Your task to perform on an android device: What's the weather going to be tomorrow? Image 0: 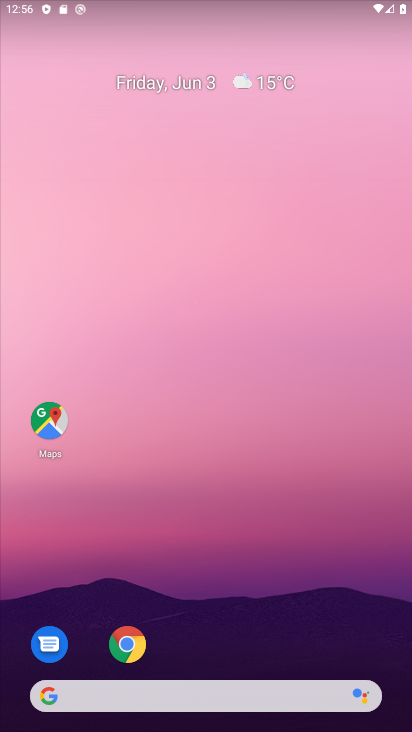
Step 0: click (272, 88)
Your task to perform on an android device: What's the weather going to be tomorrow? Image 1: 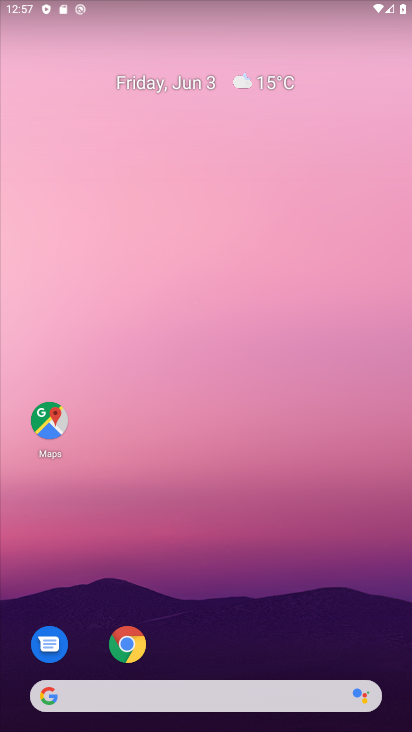
Step 1: click (266, 76)
Your task to perform on an android device: What's the weather going to be tomorrow? Image 2: 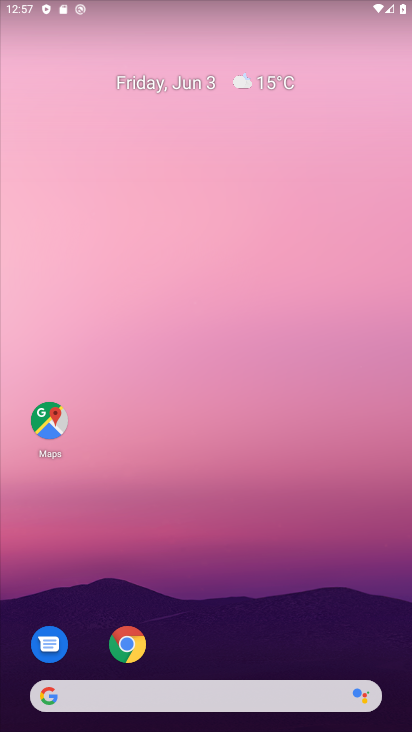
Step 2: click (271, 79)
Your task to perform on an android device: What's the weather going to be tomorrow? Image 3: 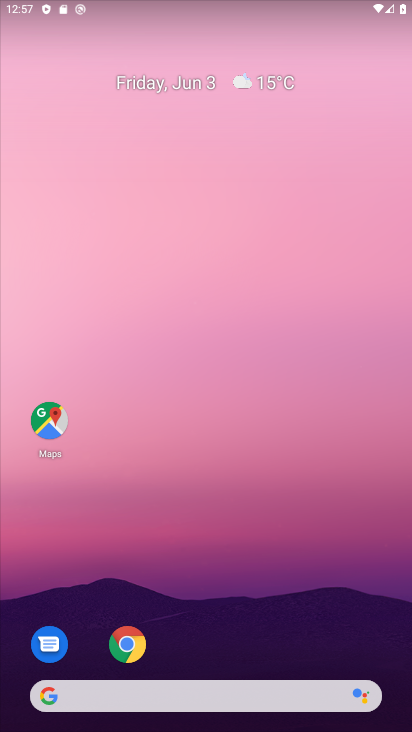
Step 3: click (271, 81)
Your task to perform on an android device: What's the weather going to be tomorrow? Image 4: 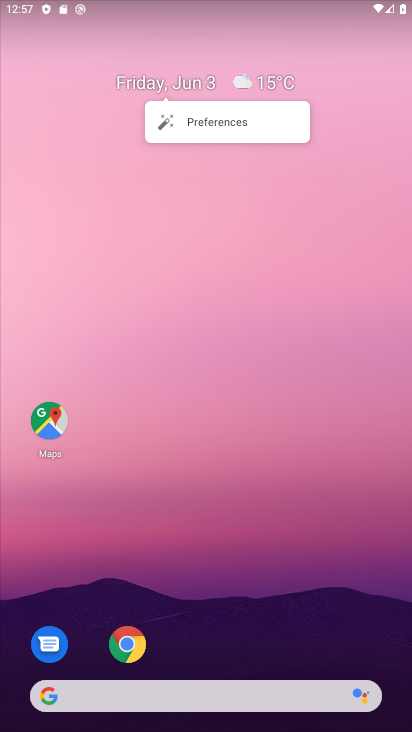
Step 4: click (271, 80)
Your task to perform on an android device: What's the weather going to be tomorrow? Image 5: 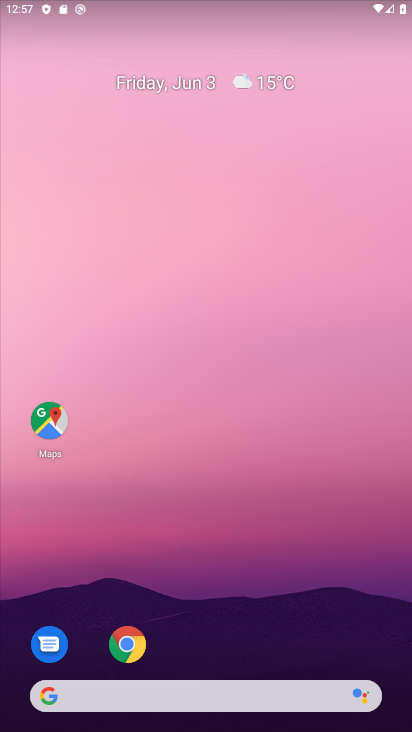
Step 5: click (271, 80)
Your task to perform on an android device: What's the weather going to be tomorrow? Image 6: 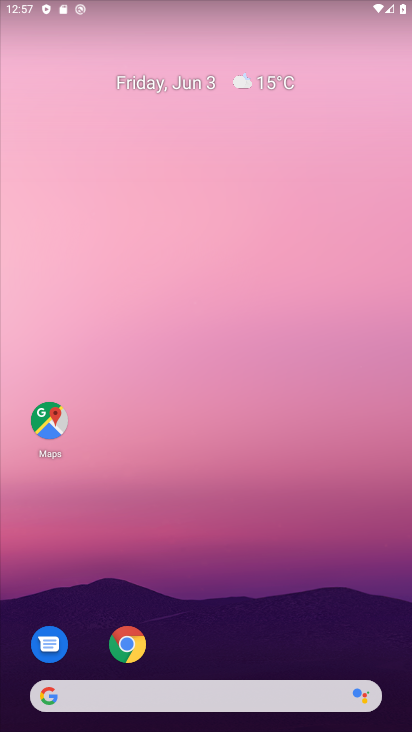
Step 6: click (271, 80)
Your task to perform on an android device: What's the weather going to be tomorrow? Image 7: 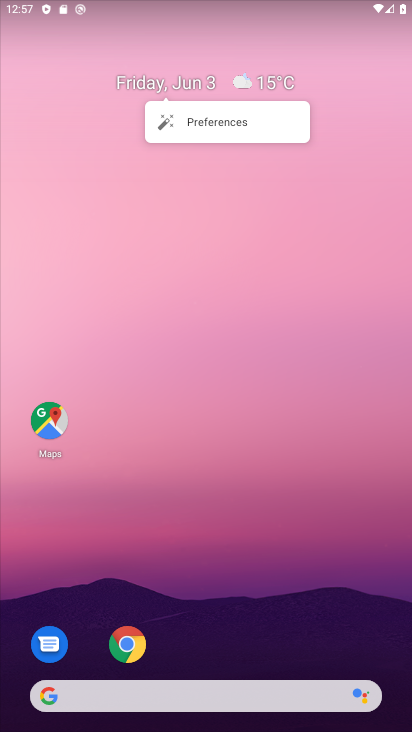
Step 7: click (271, 81)
Your task to perform on an android device: What's the weather going to be tomorrow? Image 8: 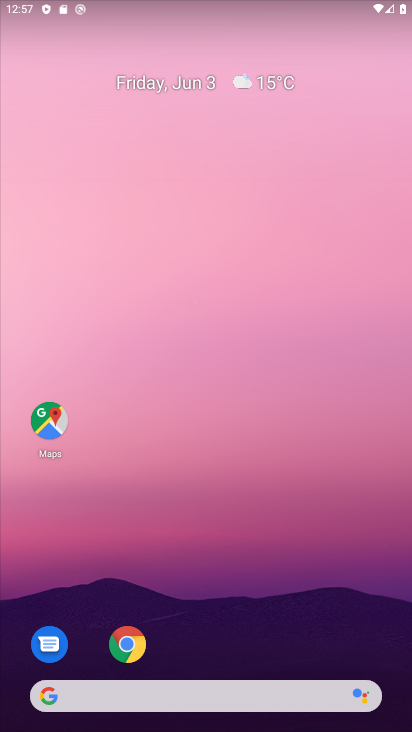
Step 8: click (271, 81)
Your task to perform on an android device: What's the weather going to be tomorrow? Image 9: 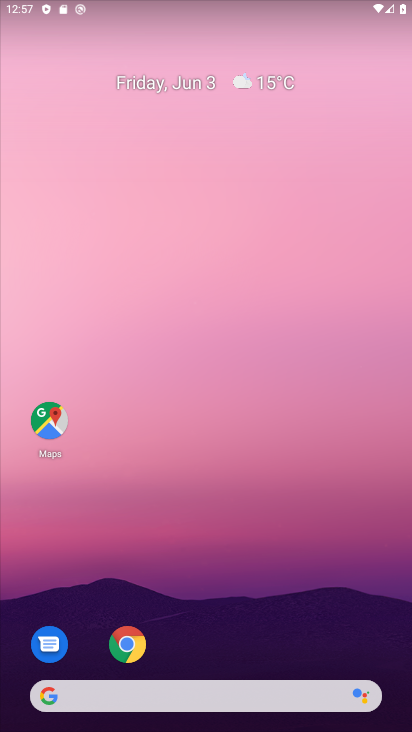
Step 9: click (245, 91)
Your task to perform on an android device: What's the weather going to be tomorrow? Image 10: 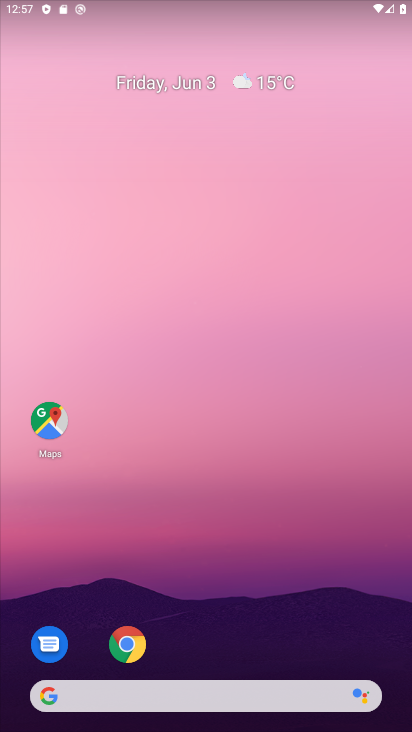
Step 10: click (252, 91)
Your task to perform on an android device: What's the weather going to be tomorrow? Image 11: 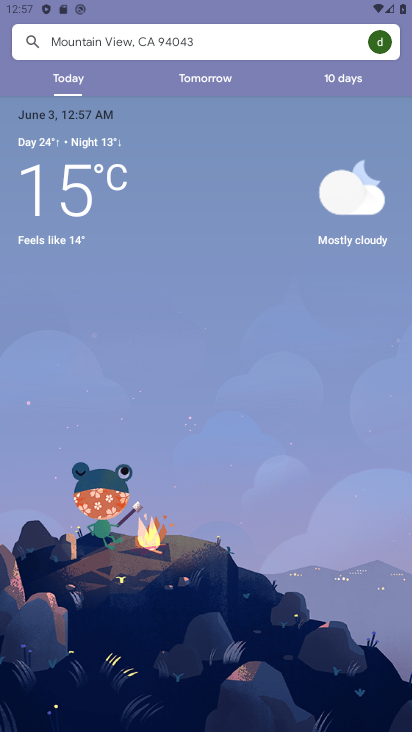
Step 11: click (200, 90)
Your task to perform on an android device: What's the weather going to be tomorrow? Image 12: 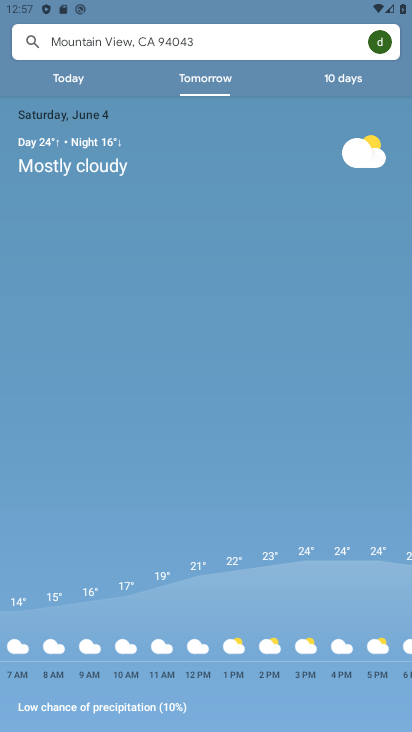
Step 12: task complete